Your task to perform on an android device: Search for pizza restaurants on Maps Image 0: 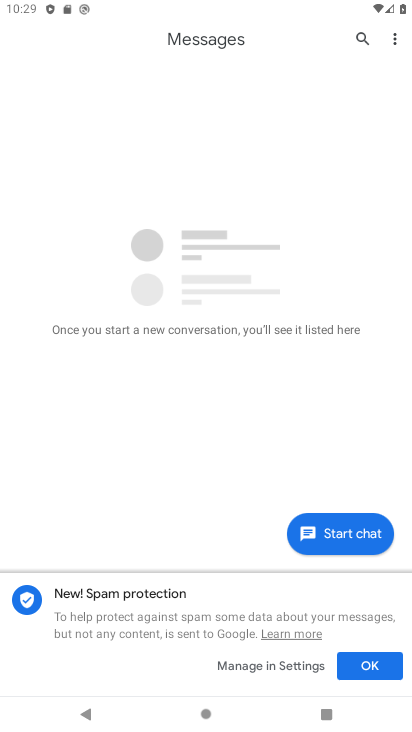
Step 0: press home button
Your task to perform on an android device: Search for pizza restaurants on Maps Image 1: 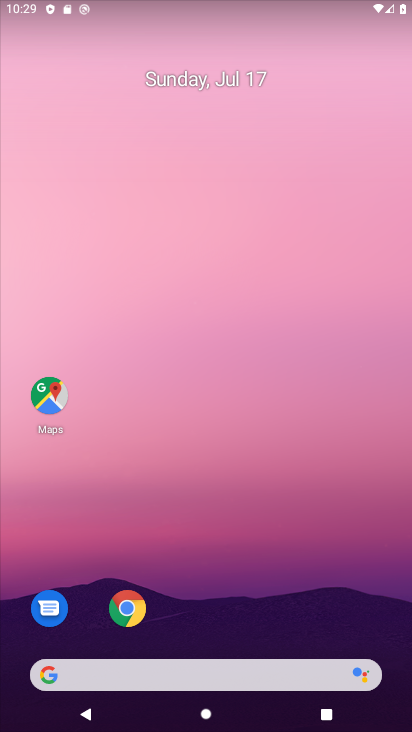
Step 1: click (154, 669)
Your task to perform on an android device: Search for pizza restaurants on Maps Image 2: 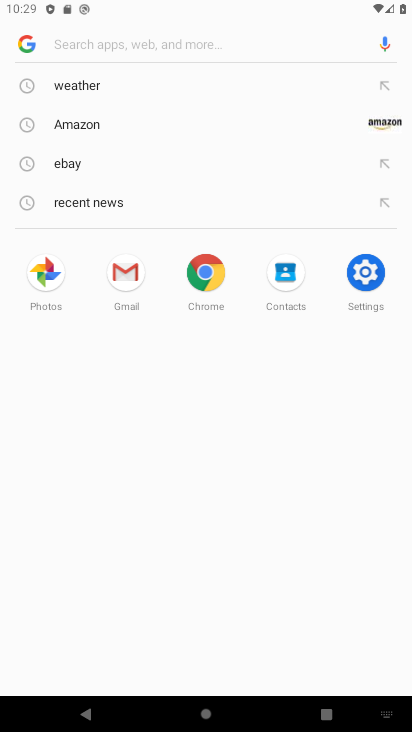
Step 2: press home button
Your task to perform on an android device: Search for pizza restaurants on Maps Image 3: 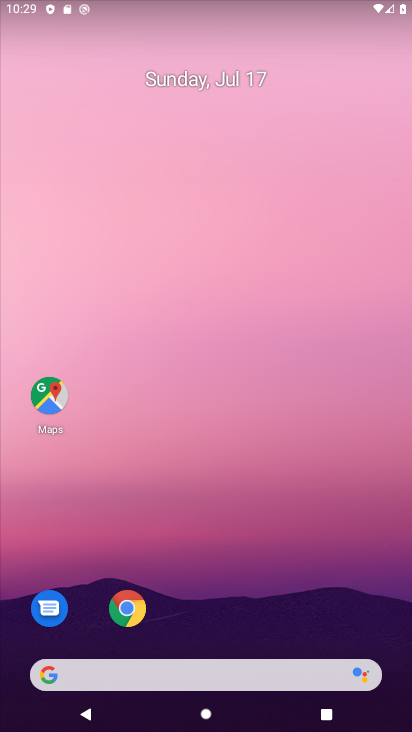
Step 3: drag from (52, 359) to (52, 405)
Your task to perform on an android device: Search for pizza restaurants on Maps Image 4: 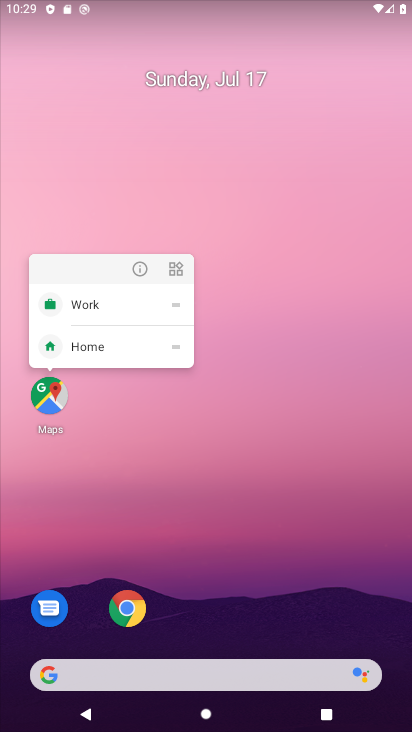
Step 4: click (52, 402)
Your task to perform on an android device: Search for pizza restaurants on Maps Image 5: 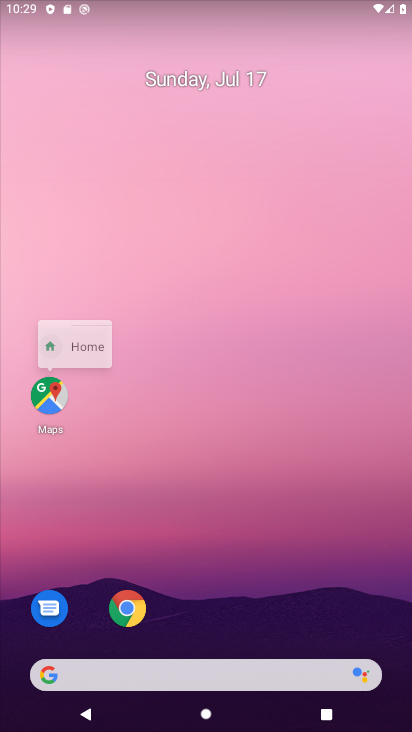
Step 5: click (52, 402)
Your task to perform on an android device: Search for pizza restaurants on Maps Image 6: 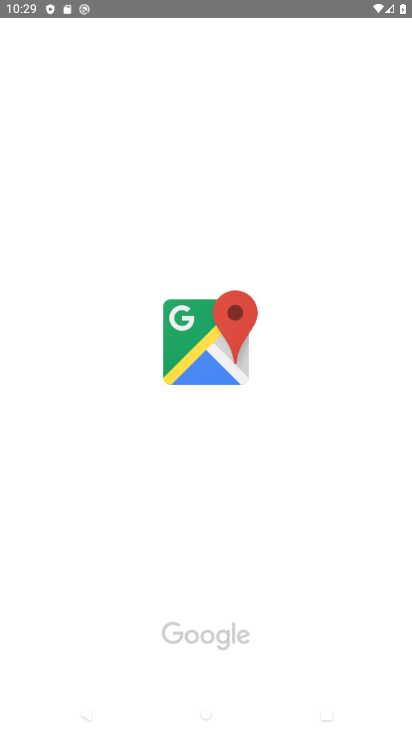
Step 6: click (34, 409)
Your task to perform on an android device: Search for pizza restaurants on Maps Image 7: 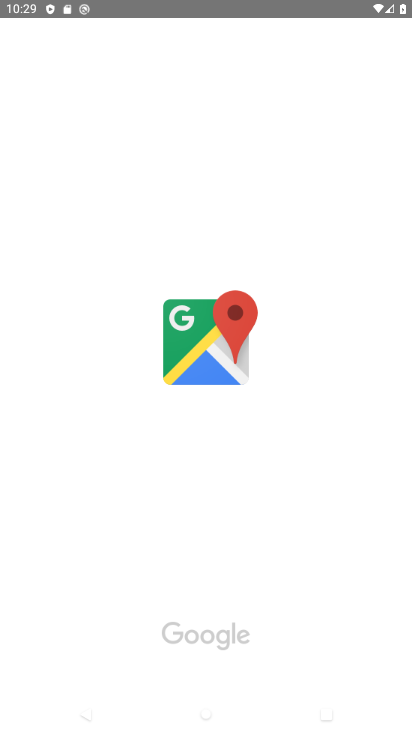
Step 7: click (34, 409)
Your task to perform on an android device: Search for pizza restaurants on Maps Image 8: 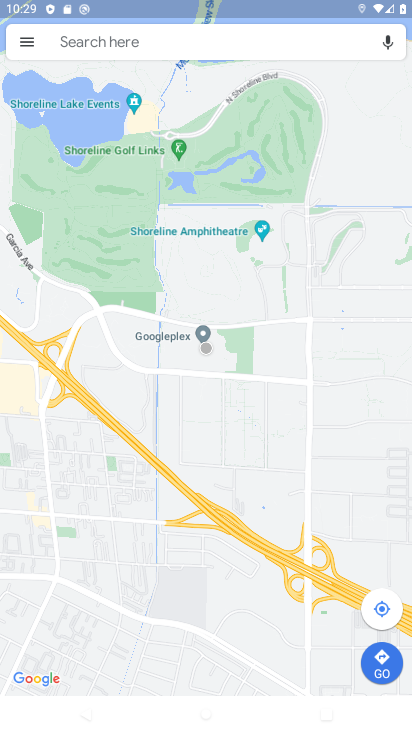
Step 8: click (72, 34)
Your task to perform on an android device: Search for pizza restaurants on Maps Image 9: 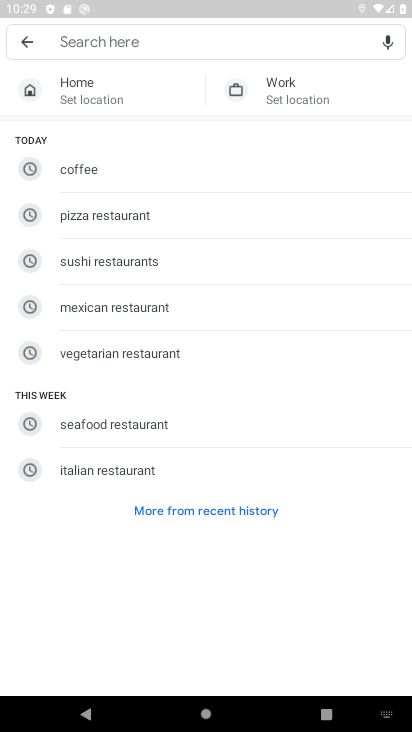
Step 9: click (99, 207)
Your task to perform on an android device: Search for pizza restaurants on Maps Image 10: 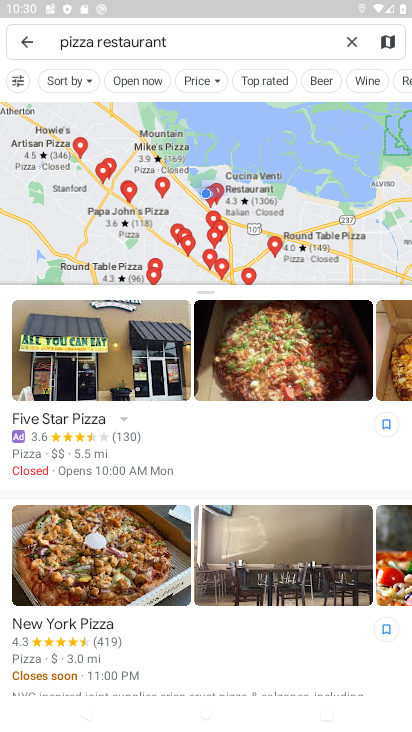
Step 10: task complete